Your task to perform on an android device: Add panasonic triple a to the cart on ebay.com, then select checkout. Image 0: 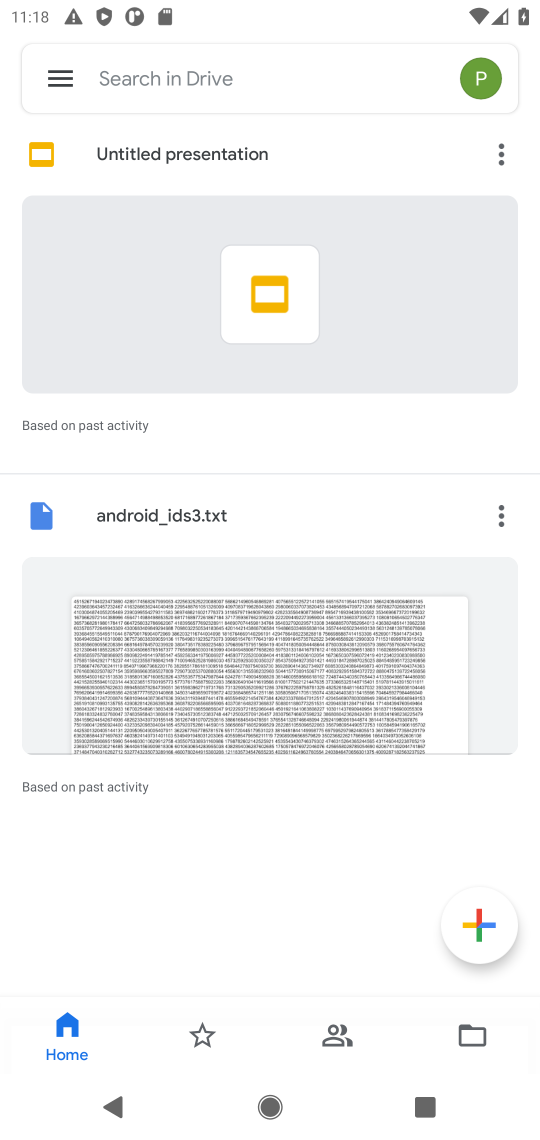
Step 0: press home button
Your task to perform on an android device: Add panasonic triple a to the cart on ebay.com, then select checkout. Image 1: 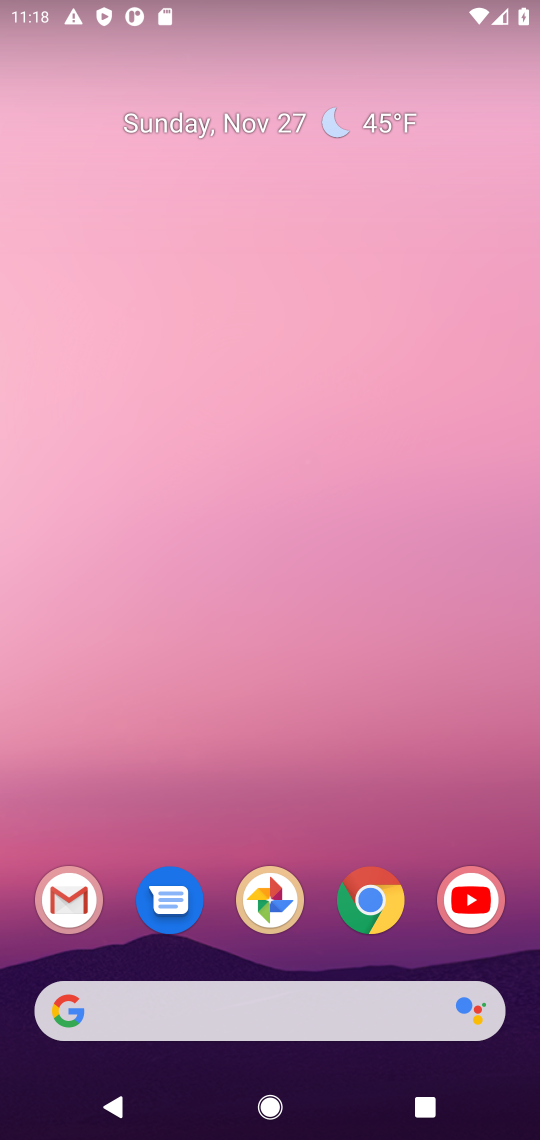
Step 1: click (364, 888)
Your task to perform on an android device: Add panasonic triple a to the cart on ebay.com, then select checkout. Image 2: 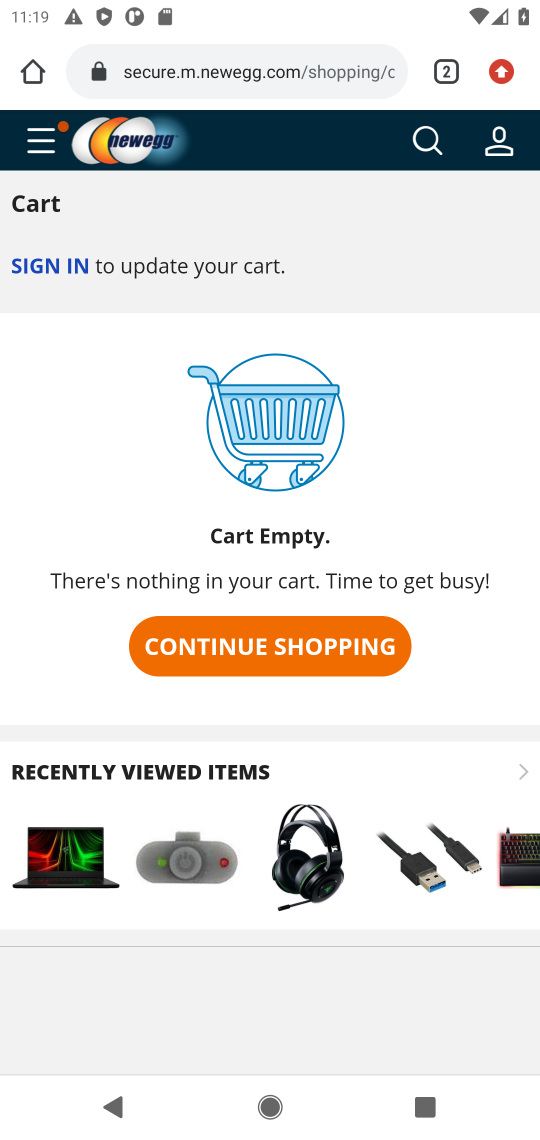
Step 2: click (178, 68)
Your task to perform on an android device: Add panasonic triple a to the cart on ebay.com, then select checkout. Image 3: 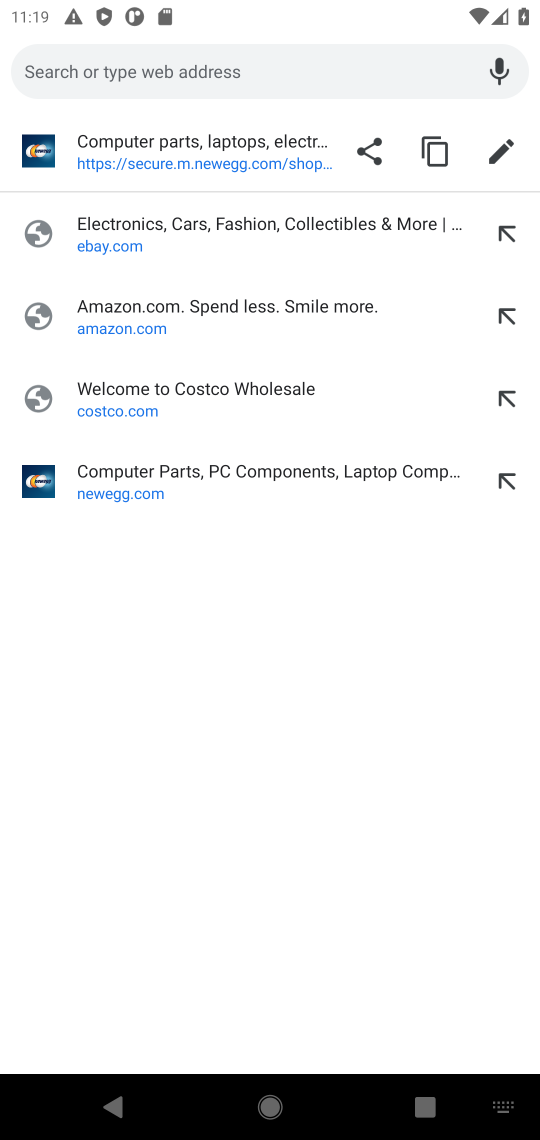
Step 3: click (121, 235)
Your task to perform on an android device: Add panasonic triple a to the cart on ebay.com, then select checkout. Image 4: 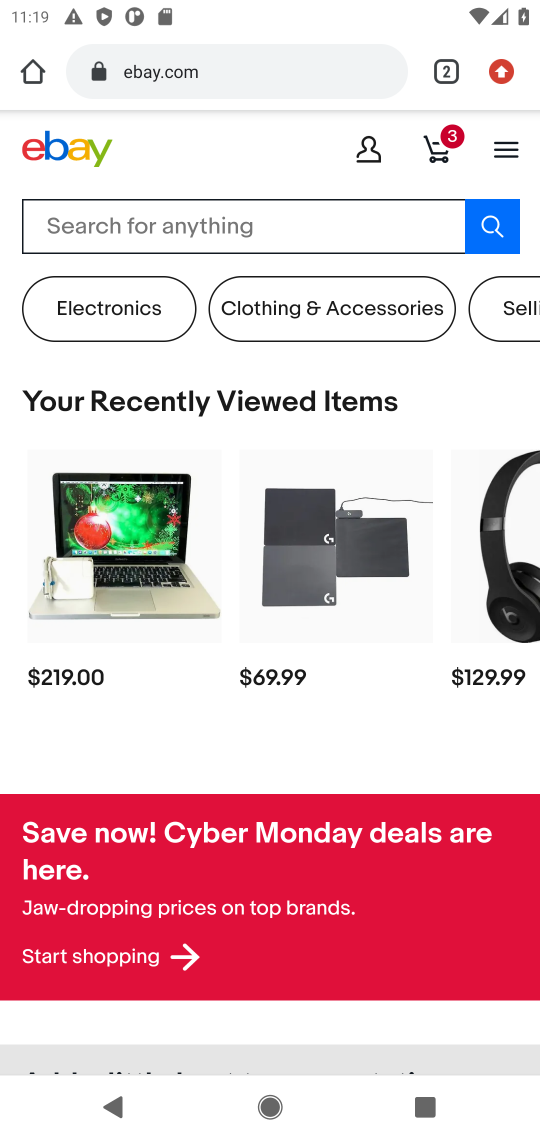
Step 4: click (130, 226)
Your task to perform on an android device: Add panasonic triple a to the cart on ebay.com, then select checkout. Image 5: 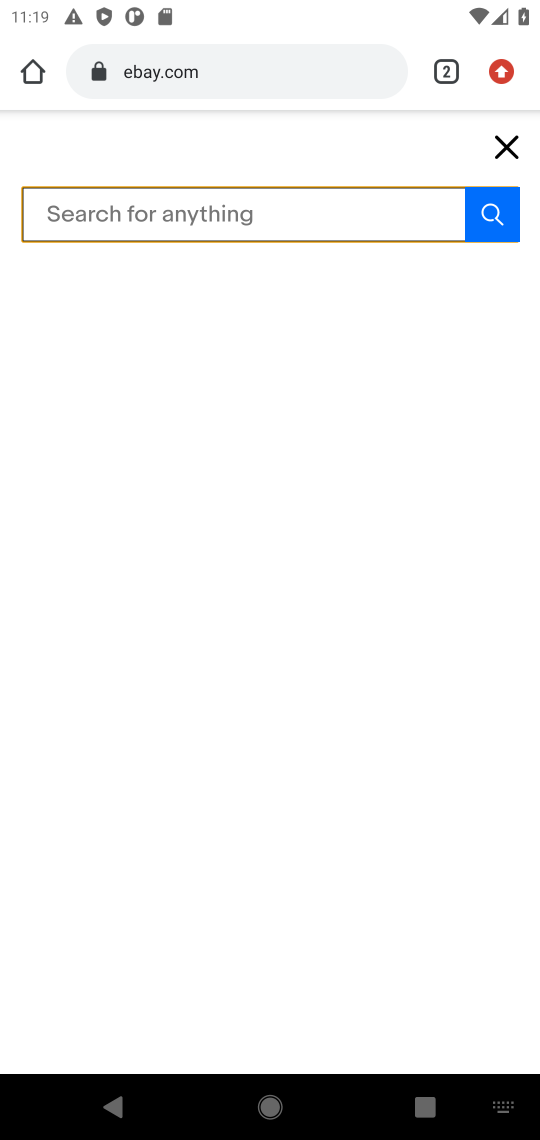
Step 5: type "panasonic triple a"
Your task to perform on an android device: Add panasonic triple a to the cart on ebay.com, then select checkout. Image 6: 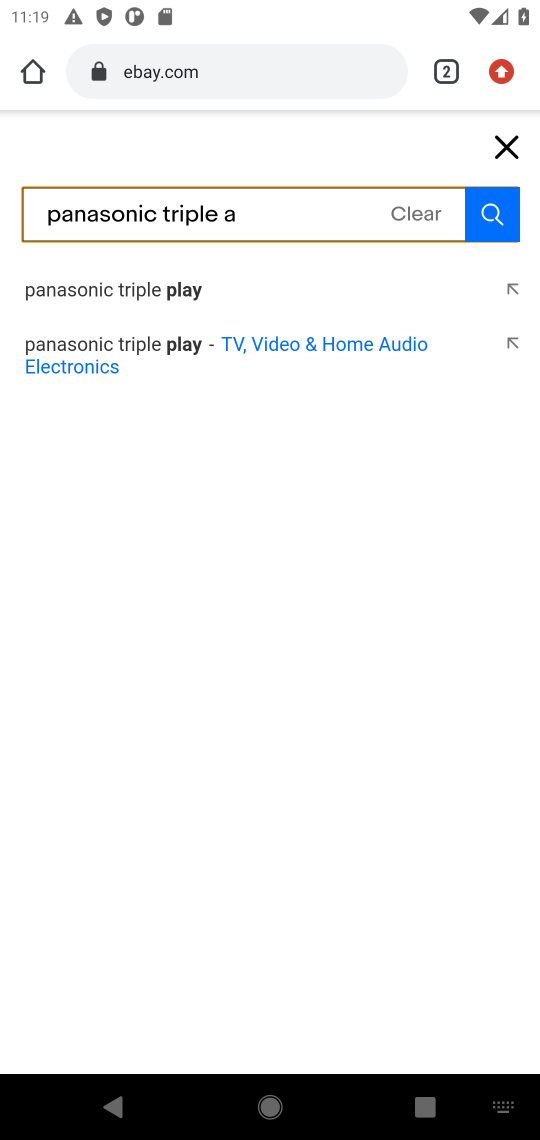
Step 6: click (489, 208)
Your task to perform on an android device: Add panasonic triple a to the cart on ebay.com, then select checkout. Image 7: 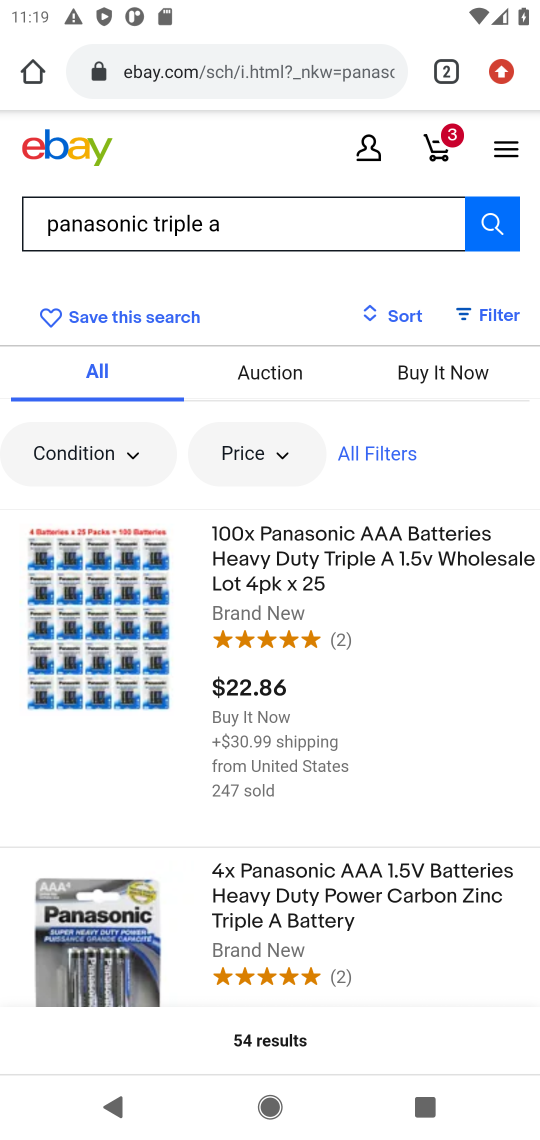
Step 7: drag from (135, 678) to (134, 489)
Your task to perform on an android device: Add panasonic triple a to the cart on ebay.com, then select checkout. Image 8: 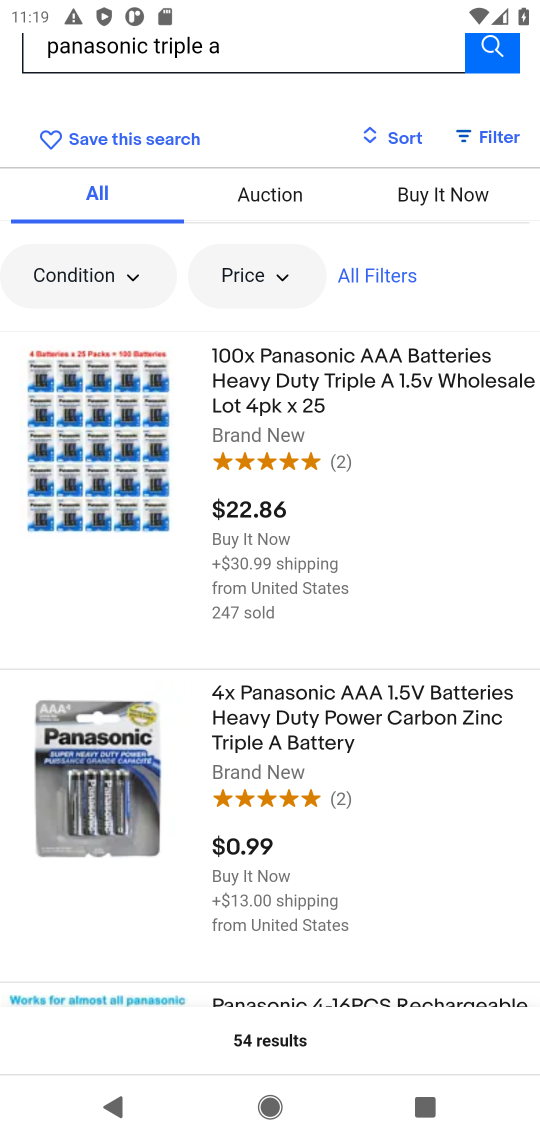
Step 8: click (287, 407)
Your task to perform on an android device: Add panasonic triple a to the cart on ebay.com, then select checkout. Image 9: 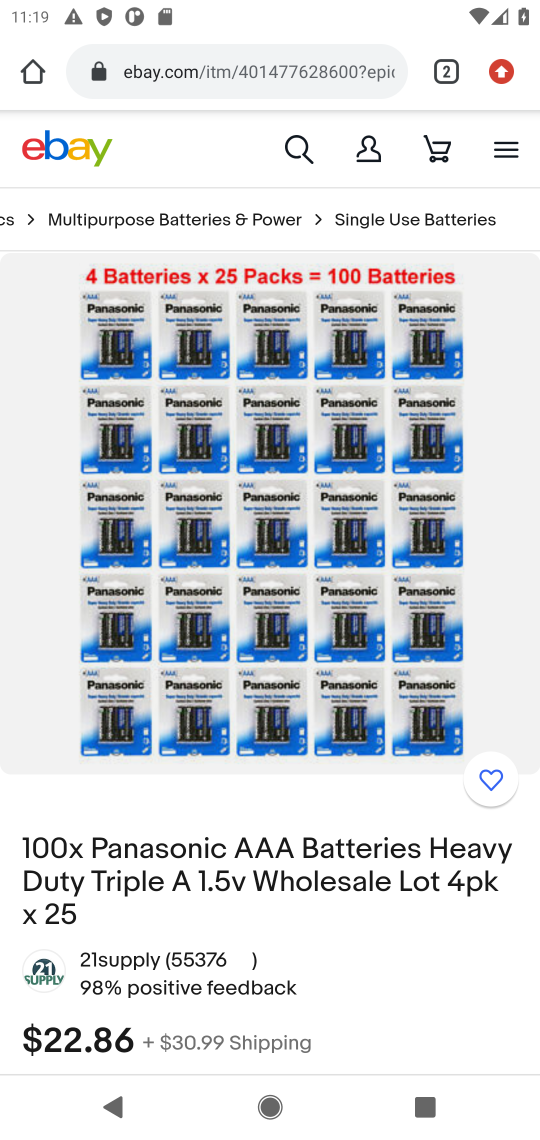
Step 9: drag from (246, 699) to (245, 396)
Your task to perform on an android device: Add panasonic triple a to the cart on ebay.com, then select checkout. Image 10: 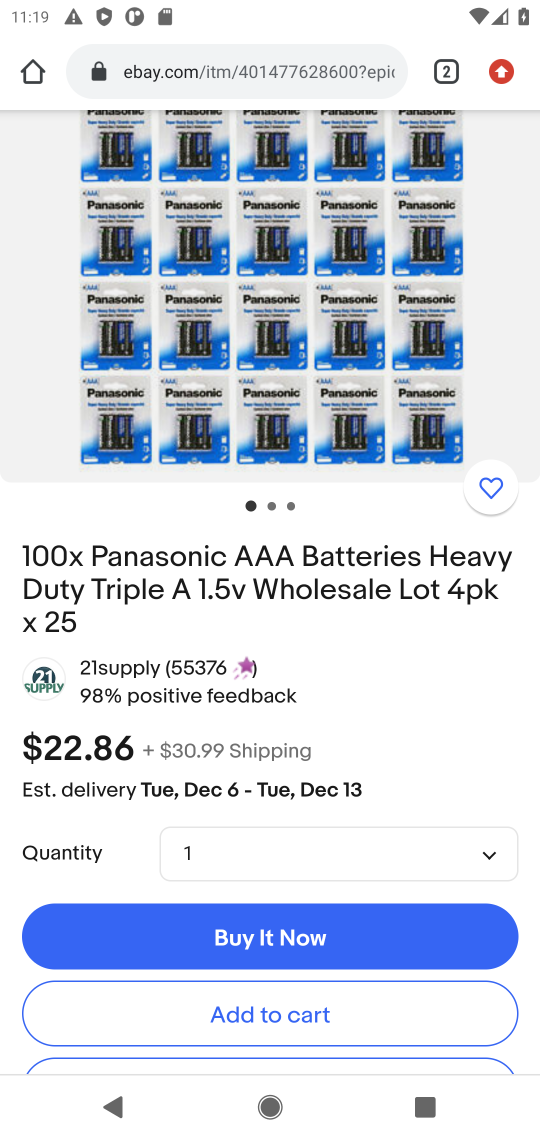
Step 10: click (209, 1006)
Your task to perform on an android device: Add panasonic triple a to the cart on ebay.com, then select checkout. Image 11: 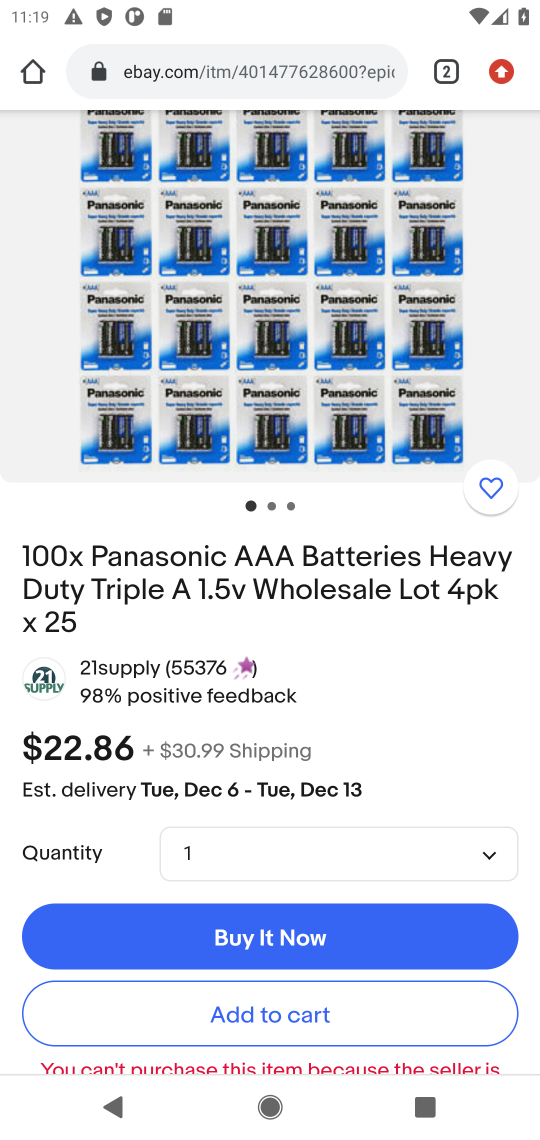
Step 11: click (209, 1006)
Your task to perform on an android device: Add panasonic triple a to the cart on ebay.com, then select checkout. Image 12: 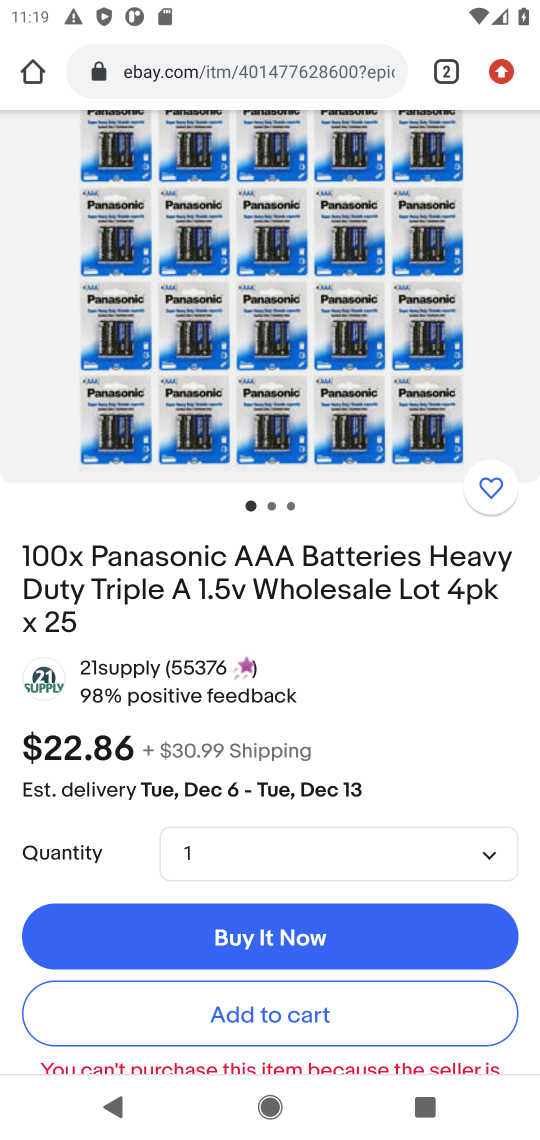
Step 12: drag from (301, 850) to (319, 593)
Your task to perform on an android device: Add panasonic triple a to the cart on ebay.com, then select checkout. Image 13: 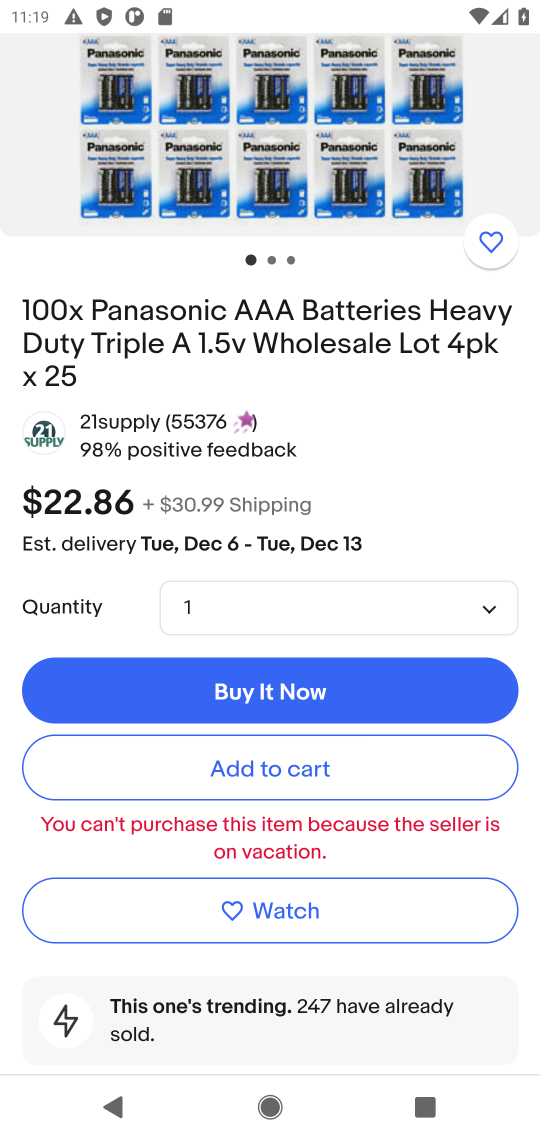
Step 13: press back button
Your task to perform on an android device: Add panasonic triple a to the cart on ebay.com, then select checkout. Image 14: 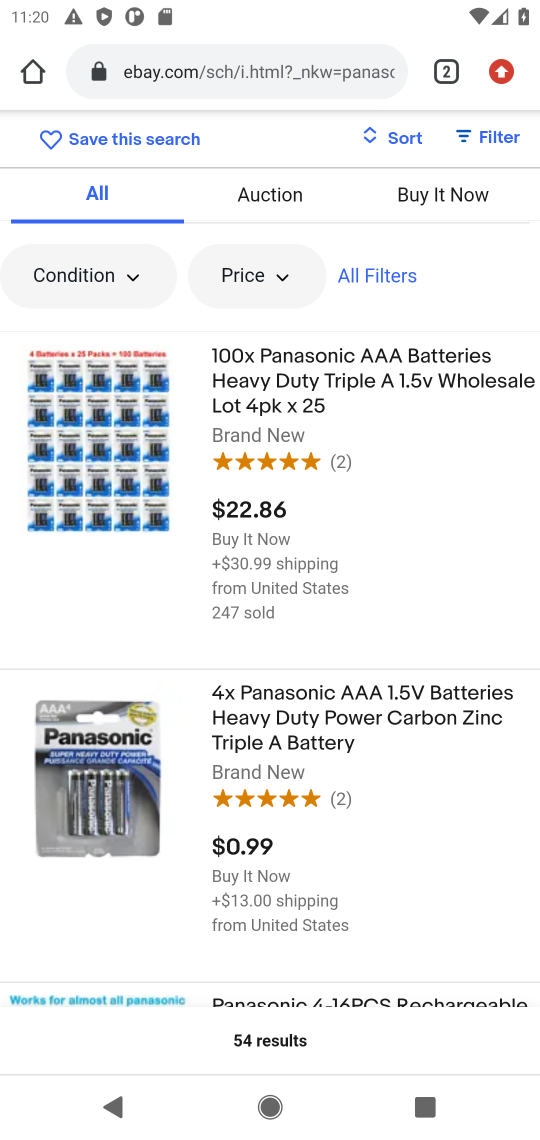
Step 14: drag from (189, 759) to (225, 490)
Your task to perform on an android device: Add panasonic triple a to the cart on ebay.com, then select checkout. Image 15: 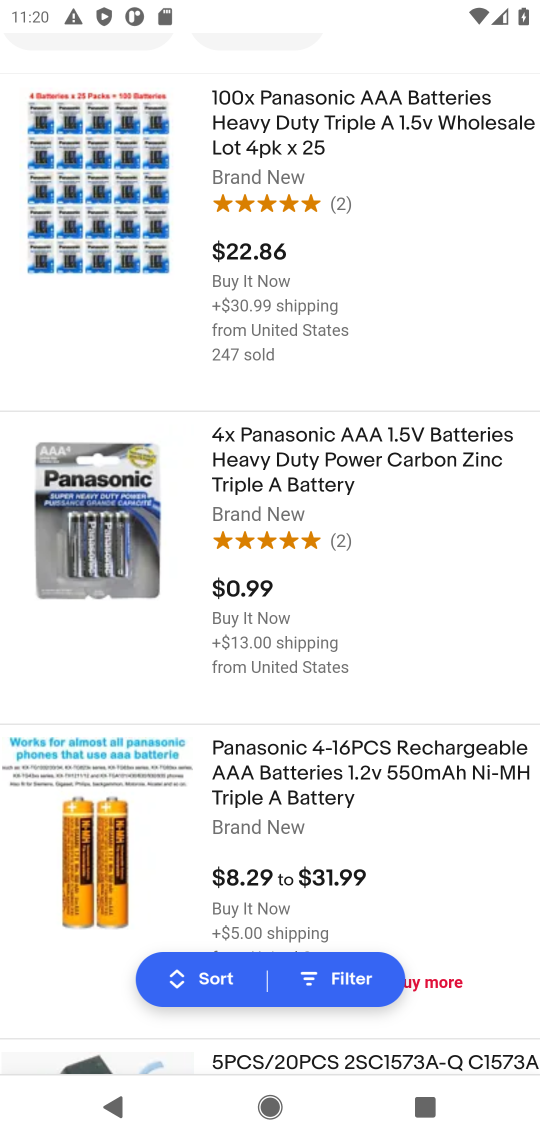
Step 15: click (284, 461)
Your task to perform on an android device: Add panasonic triple a to the cart on ebay.com, then select checkout. Image 16: 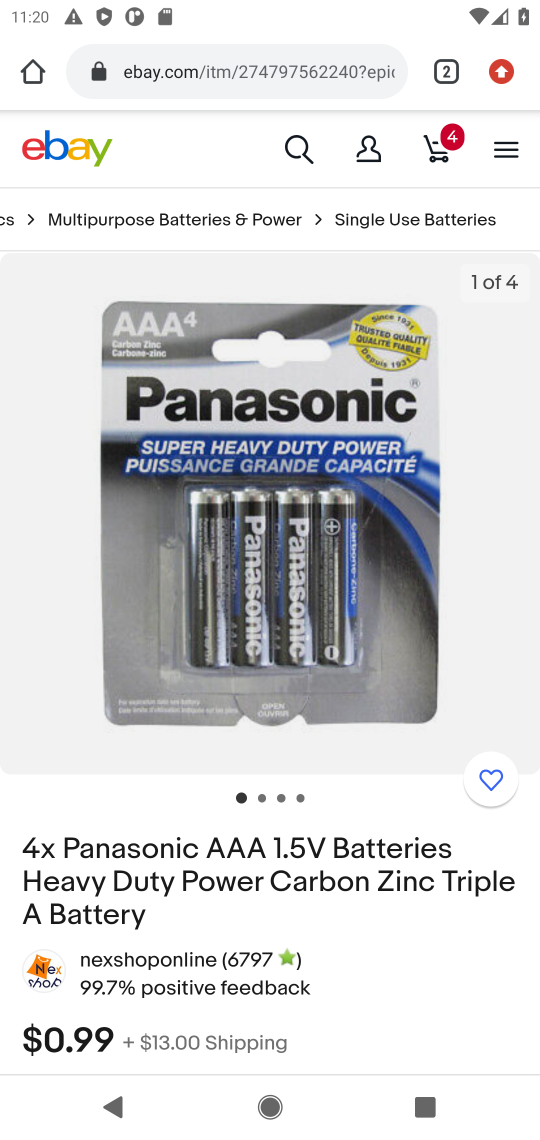
Step 16: drag from (192, 781) to (242, 266)
Your task to perform on an android device: Add panasonic triple a to the cart on ebay.com, then select checkout. Image 17: 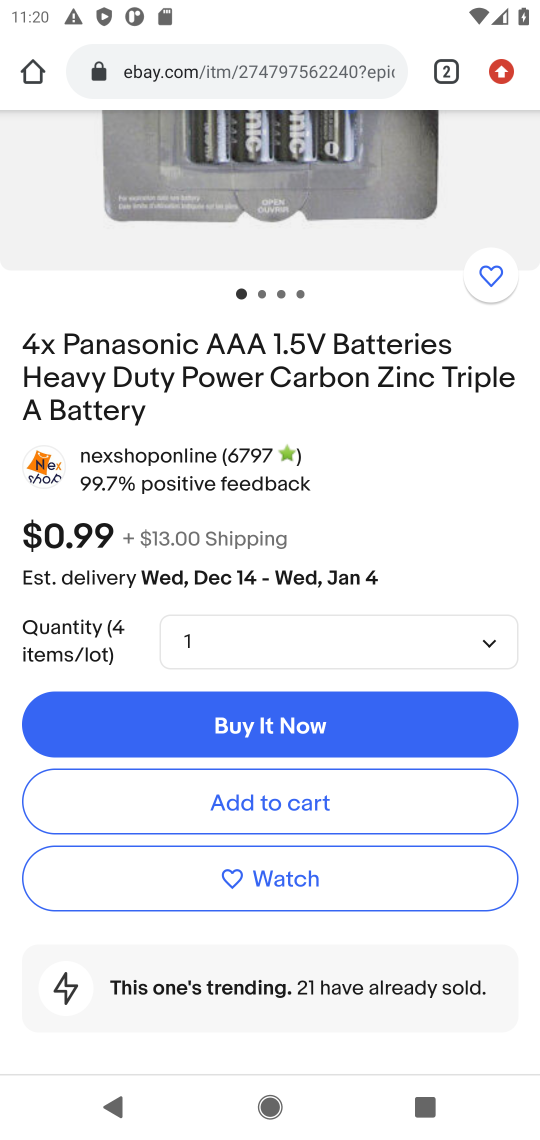
Step 17: click (199, 799)
Your task to perform on an android device: Add panasonic triple a to the cart on ebay.com, then select checkout. Image 18: 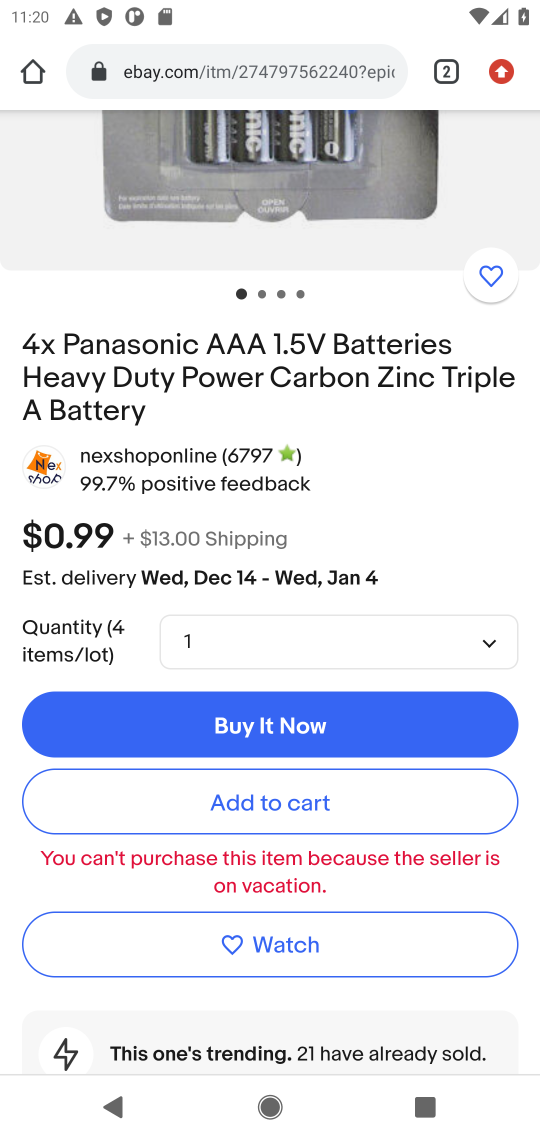
Step 18: press back button
Your task to perform on an android device: Add panasonic triple a to the cart on ebay.com, then select checkout. Image 19: 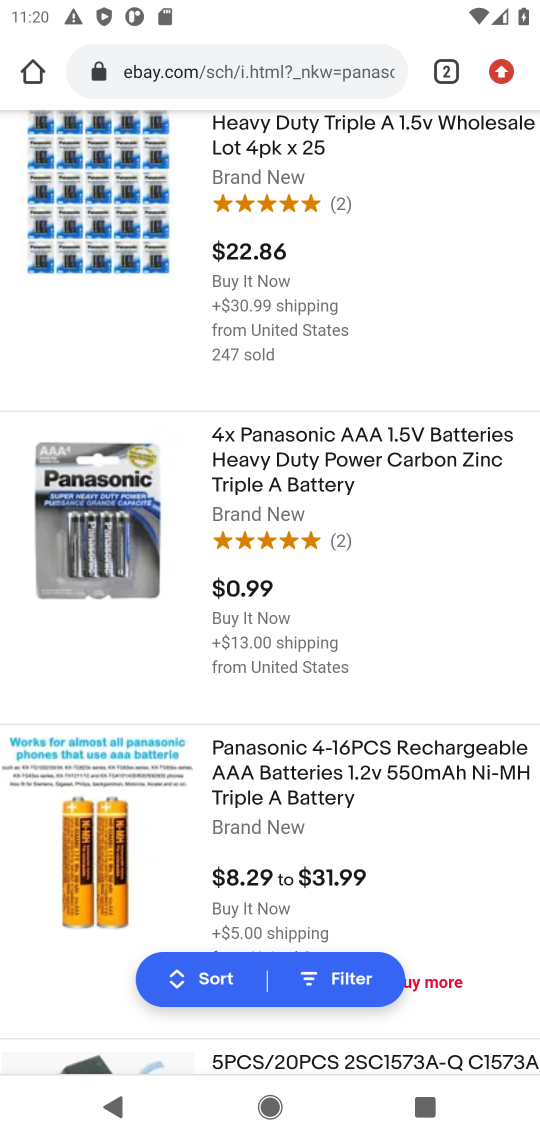
Step 19: drag from (249, 673) to (297, 317)
Your task to perform on an android device: Add panasonic triple a to the cart on ebay.com, then select checkout. Image 20: 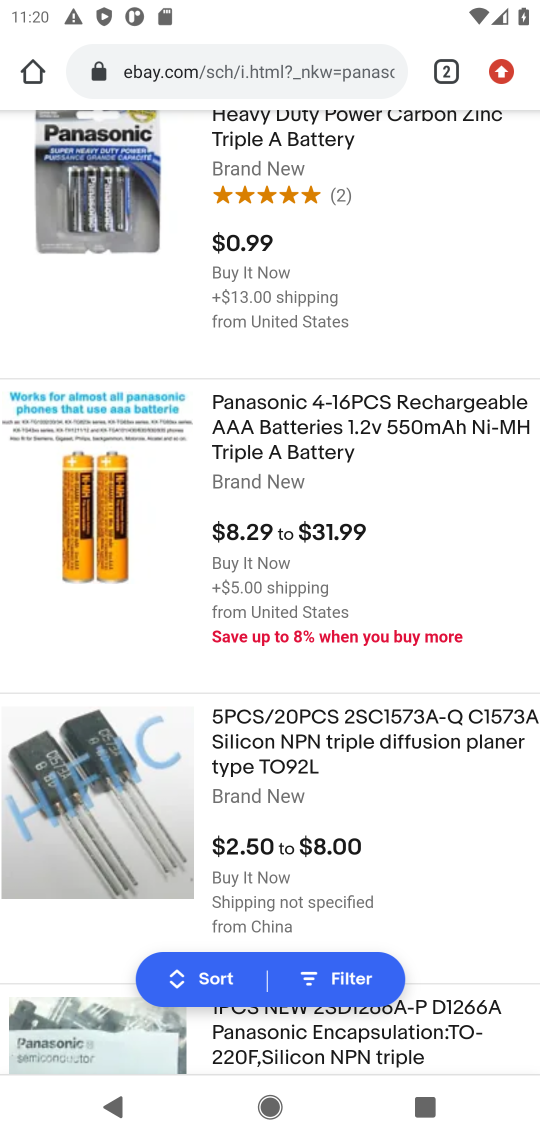
Step 20: click (236, 454)
Your task to perform on an android device: Add panasonic triple a to the cart on ebay.com, then select checkout. Image 21: 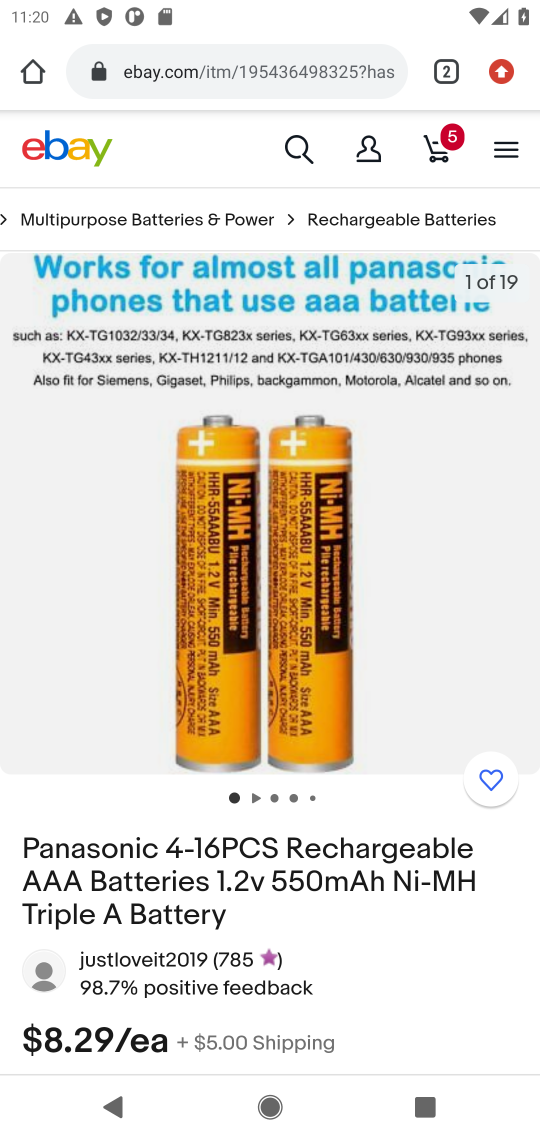
Step 21: drag from (235, 772) to (300, 431)
Your task to perform on an android device: Add panasonic triple a to the cart on ebay.com, then select checkout. Image 22: 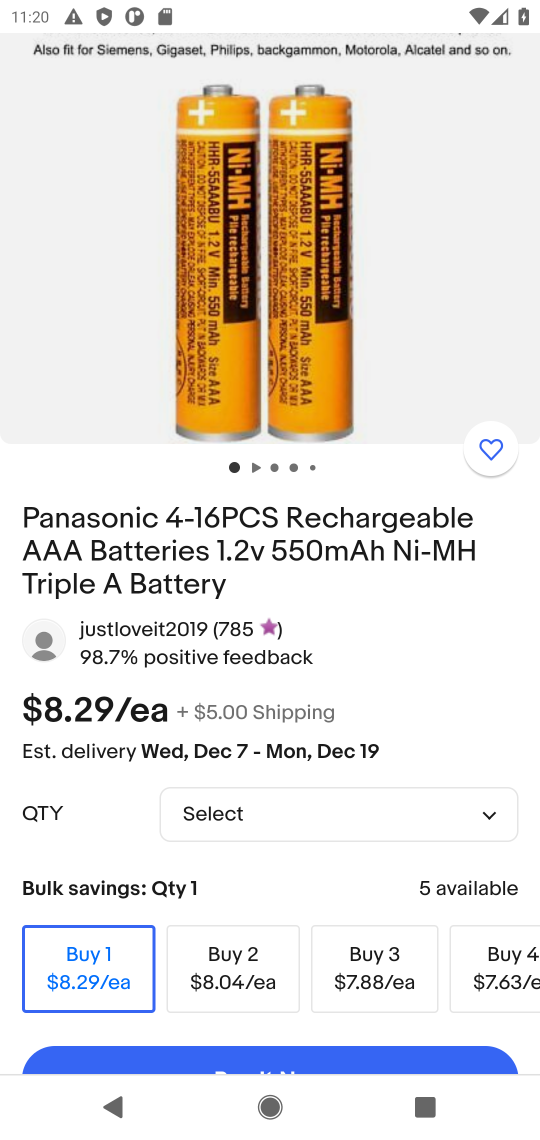
Step 22: drag from (242, 799) to (278, 296)
Your task to perform on an android device: Add panasonic triple a to the cart on ebay.com, then select checkout. Image 23: 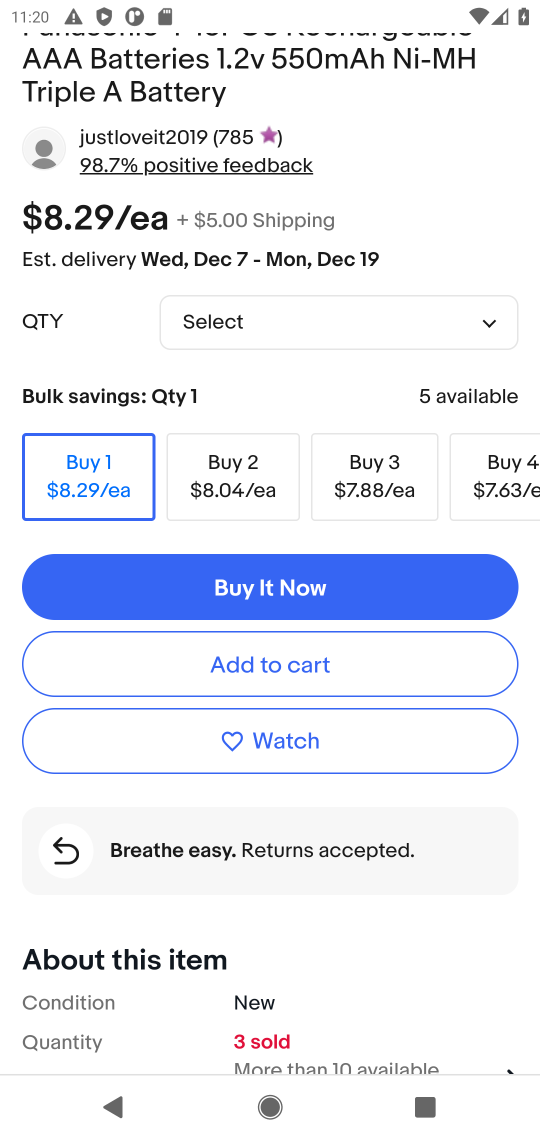
Step 23: click (245, 661)
Your task to perform on an android device: Add panasonic triple a to the cart on ebay.com, then select checkout. Image 24: 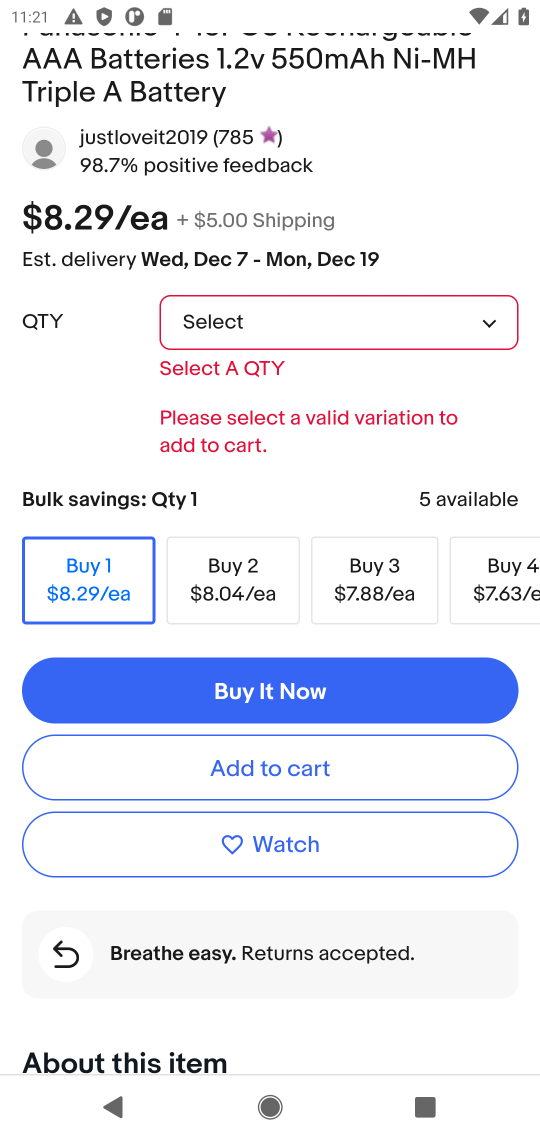
Step 24: click (484, 328)
Your task to perform on an android device: Add panasonic triple a to the cart on ebay.com, then select checkout. Image 25: 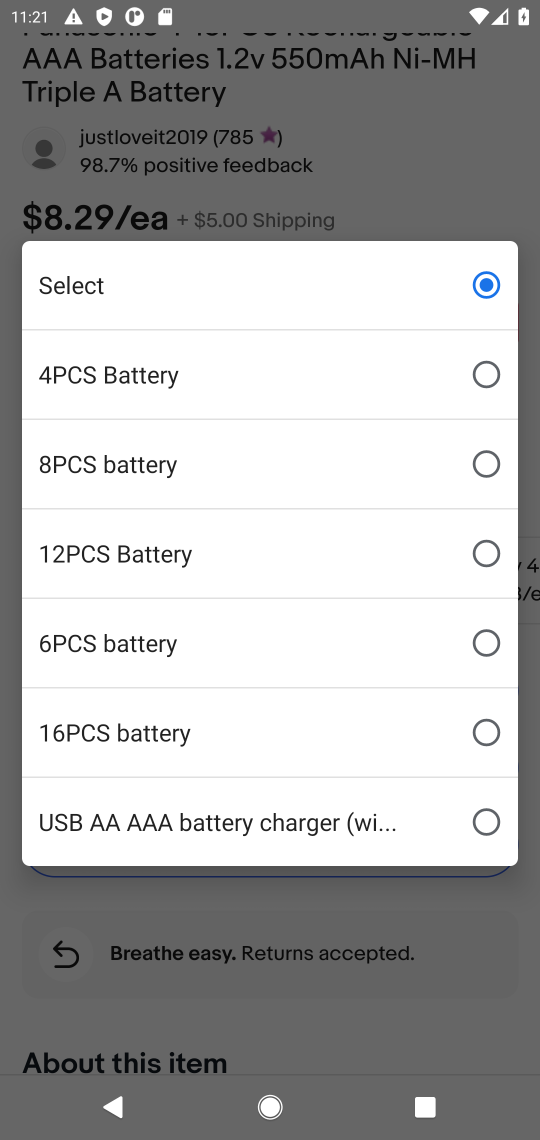
Step 25: click (77, 371)
Your task to perform on an android device: Add panasonic triple a to the cart on ebay.com, then select checkout. Image 26: 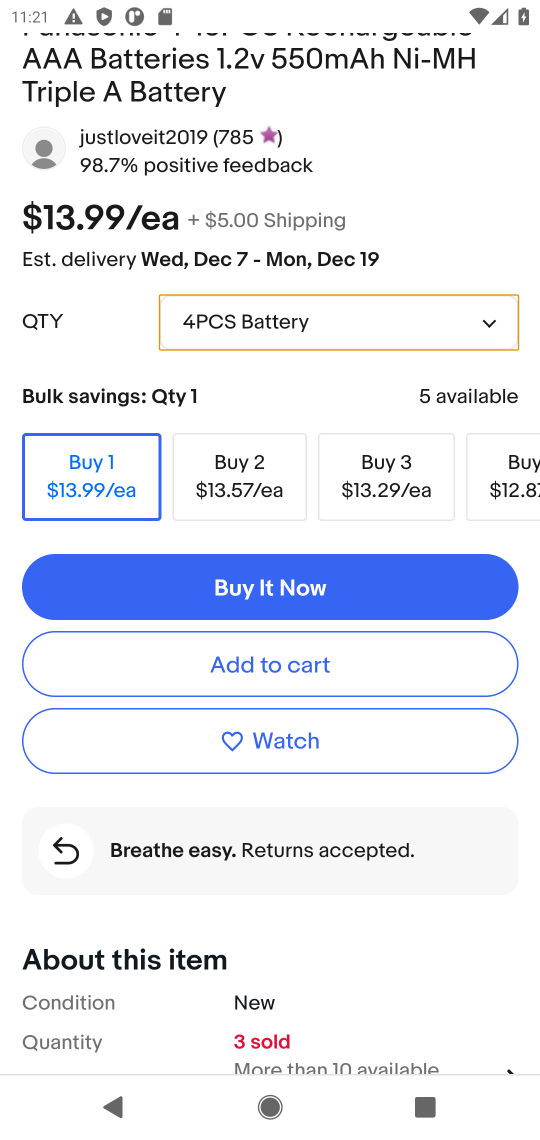
Step 26: click (269, 663)
Your task to perform on an android device: Add panasonic triple a to the cart on ebay.com, then select checkout. Image 27: 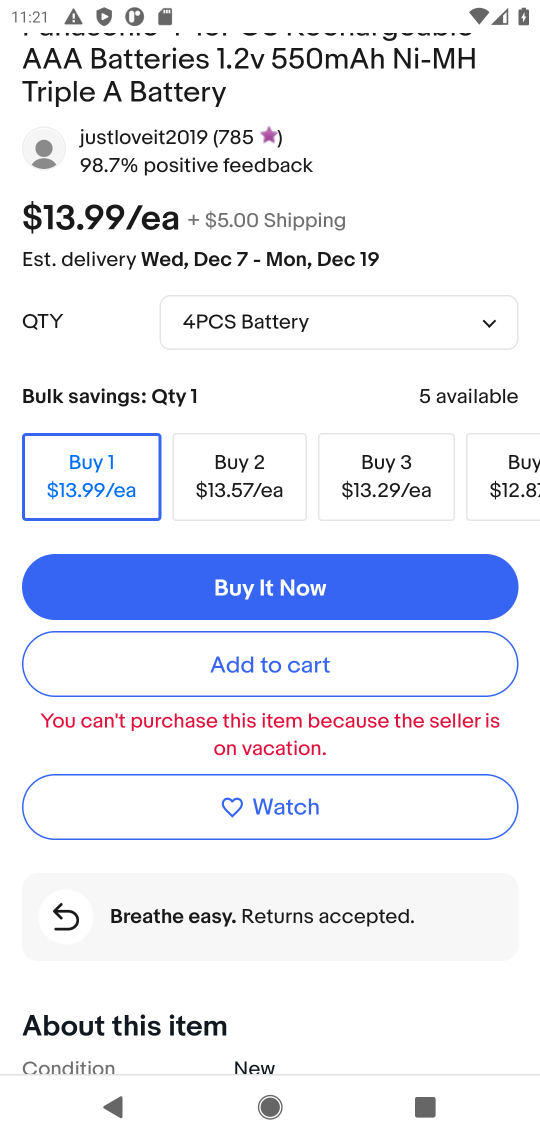
Step 27: task complete